Your task to perform on an android device: toggle translation in the chrome app Image 0: 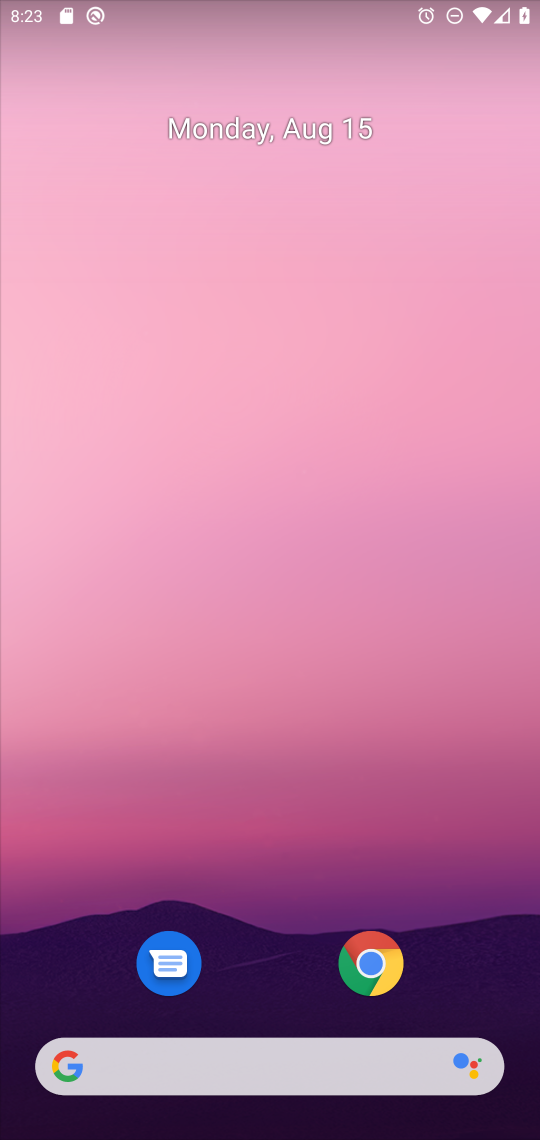
Step 0: click (377, 976)
Your task to perform on an android device: toggle translation in the chrome app Image 1: 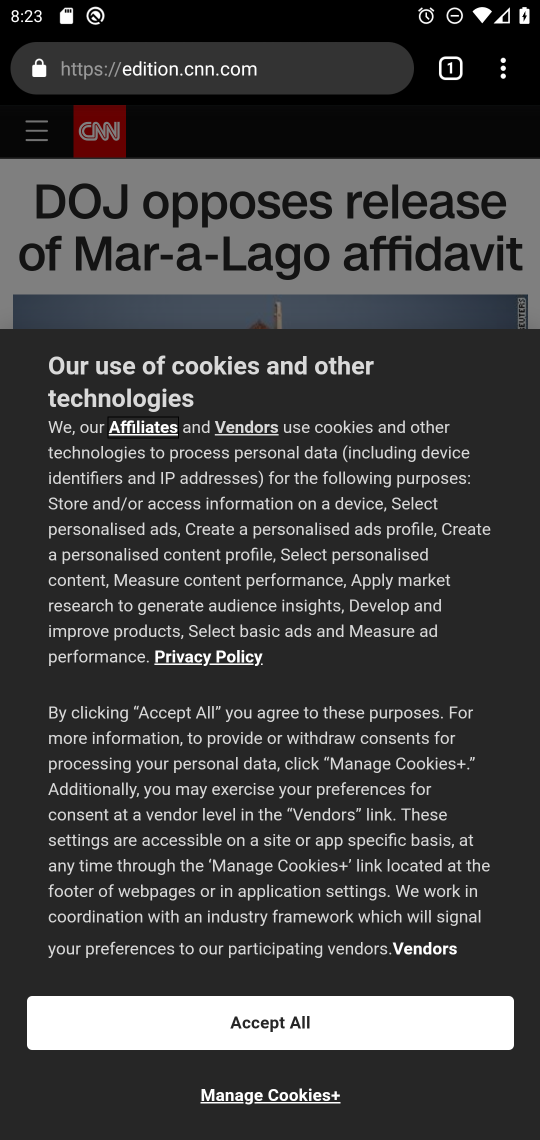
Step 1: click (521, 61)
Your task to perform on an android device: toggle translation in the chrome app Image 2: 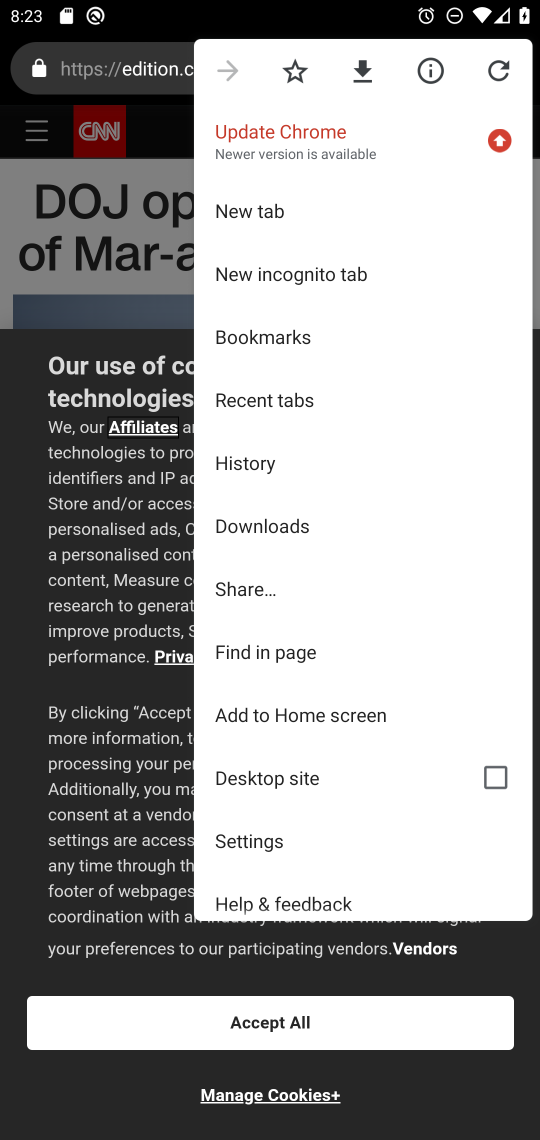
Step 2: click (296, 841)
Your task to perform on an android device: toggle translation in the chrome app Image 3: 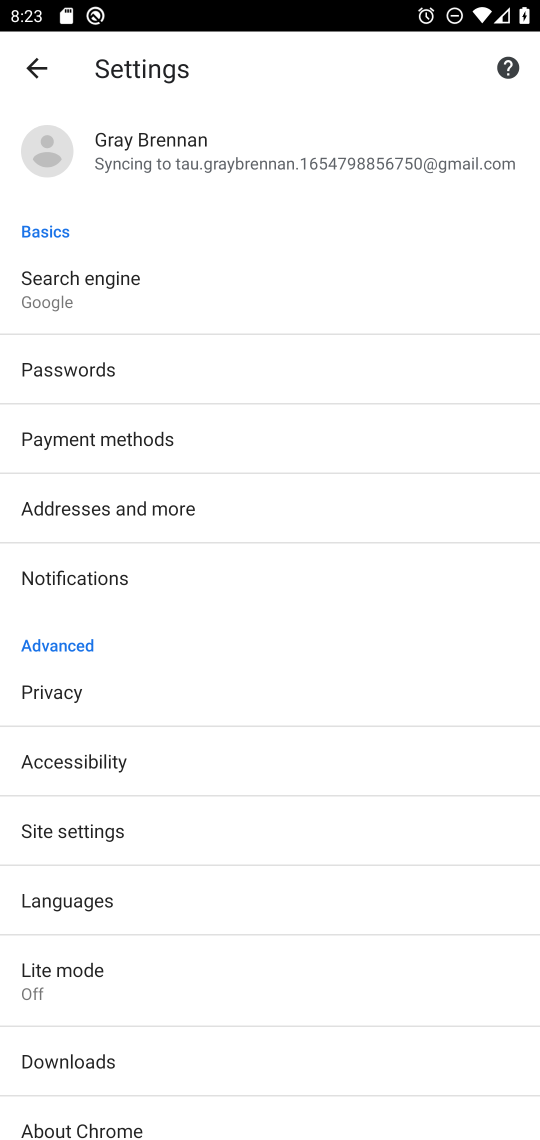
Step 3: click (282, 924)
Your task to perform on an android device: toggle translation in the chrome app Image 4: 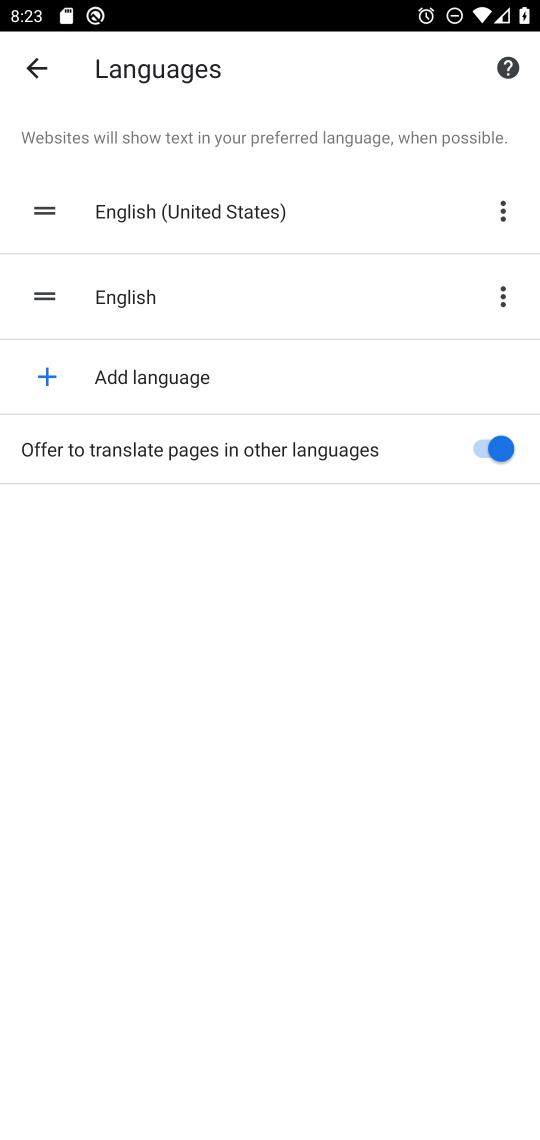
Step 4: click (488, 447)
Your task to perform on an android device: toggle translation in the chrome app Image 5: 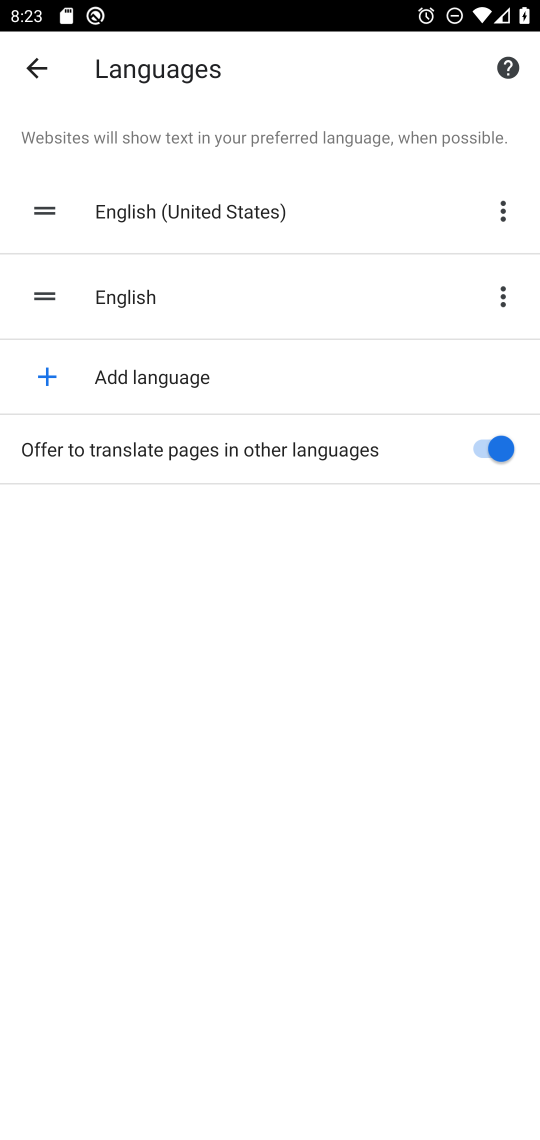
Step 5: click (488, 447)
Your task to perform on an android device: toggle translation in the chrome app Image 6: 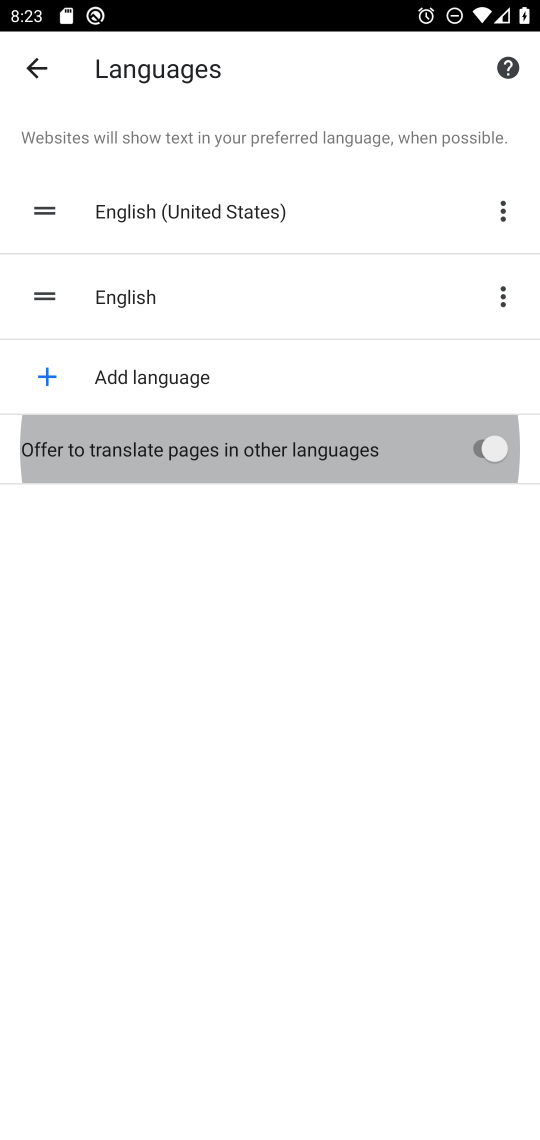
Step 6: click (488, 447)
Your task to perform on an android device: toggle translation in the chrome app Image 7: 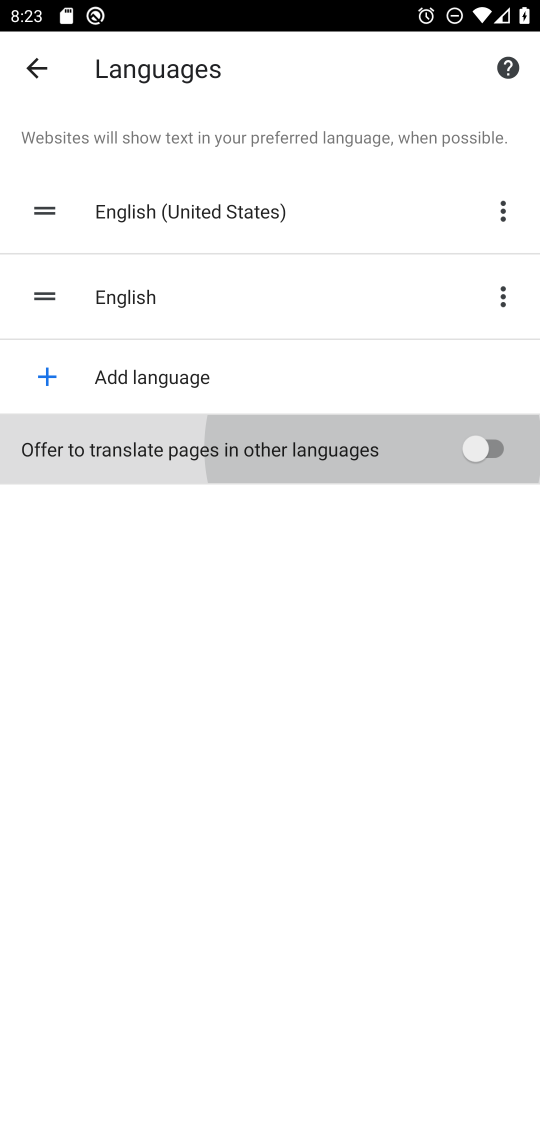
Step 7: click (488, 447)
Your task to perform on an android device: toggle translation in the chrome app Image 8: 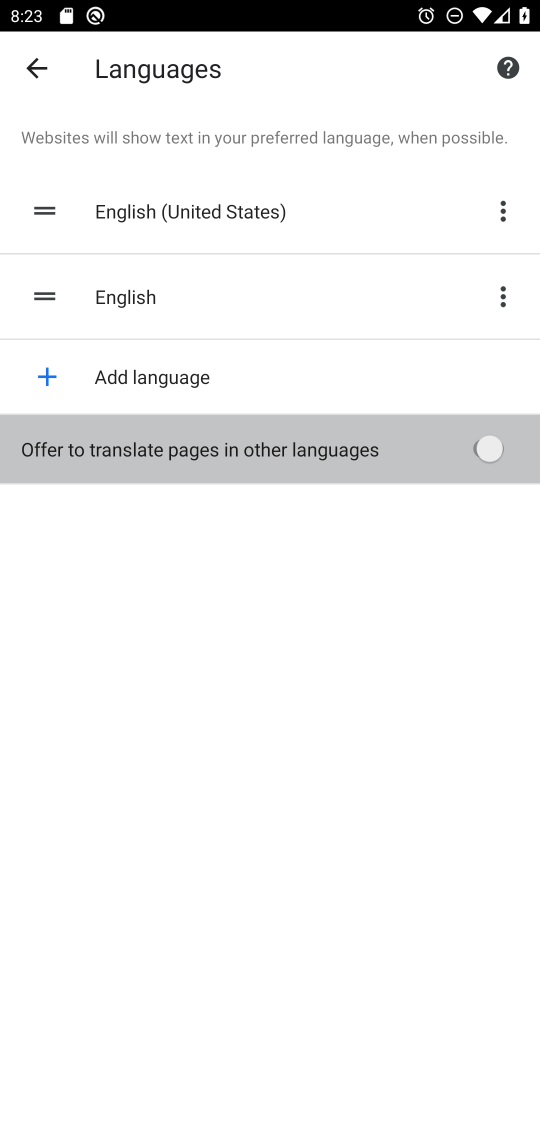
Step 8: click (488, 447)
Your task to perform on an android device: toggle translation in the chrome app Image 9: 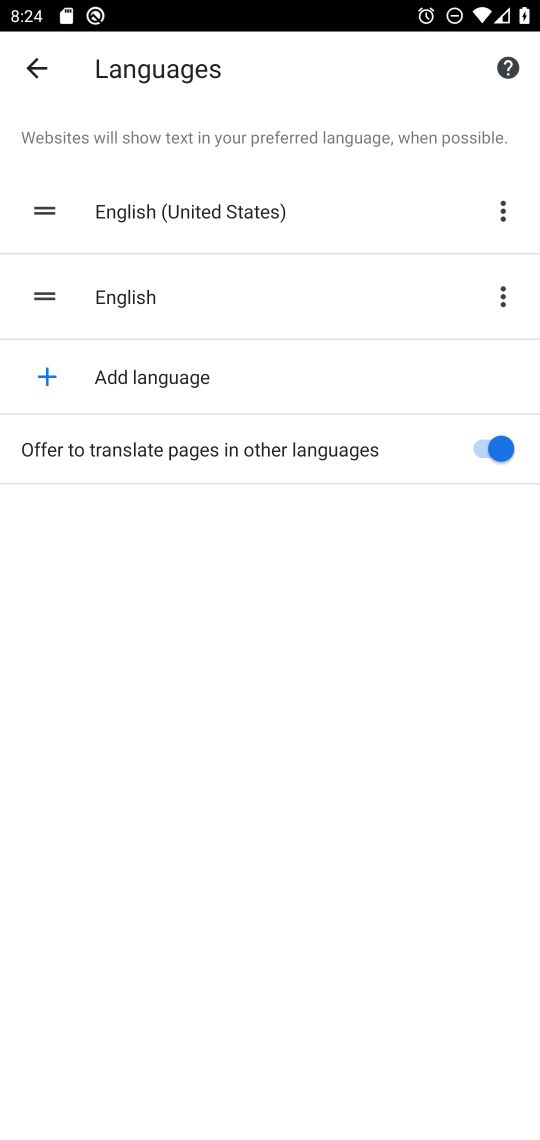
Step 9: task complete